Your task to perform on an android device: turn vacation reply on in the gmail app Image 0: 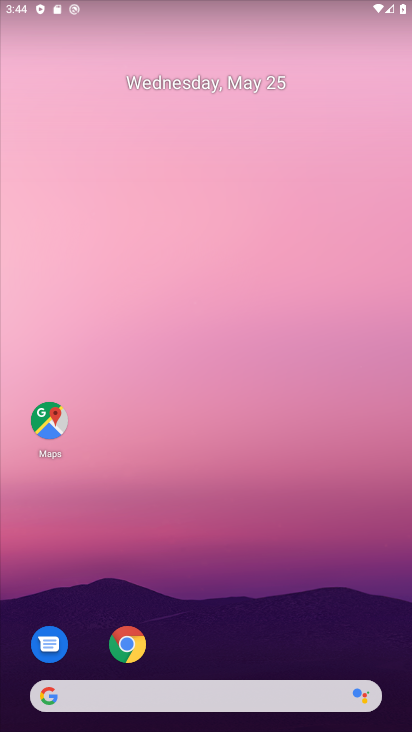
Step 0: drag from (214, 676) to (292, 238)
Your task to perform on an android device: turn vacation reply on in the gmail app Image 1: 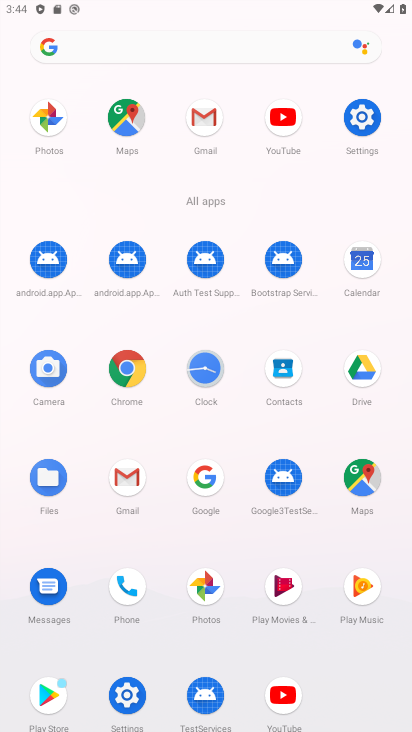
Step 1: click (130, 476)
Your task to perform on an android device: turn vacation reply on in the gmail app Image 2: 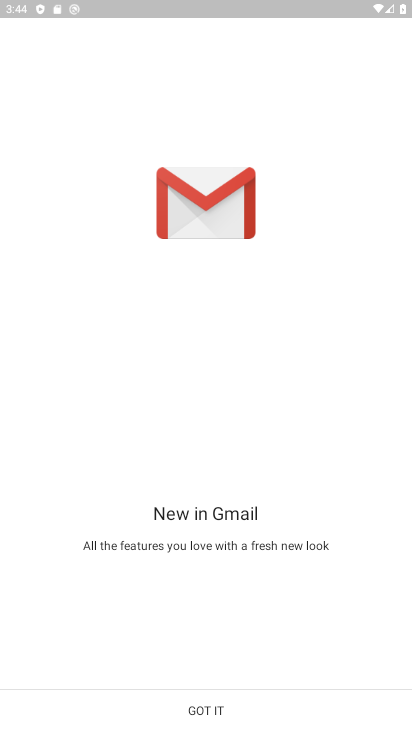
Step 2: click (220, 707)
Your task to perform on an android device: turn vacation reply on in the gmail app Image 3: 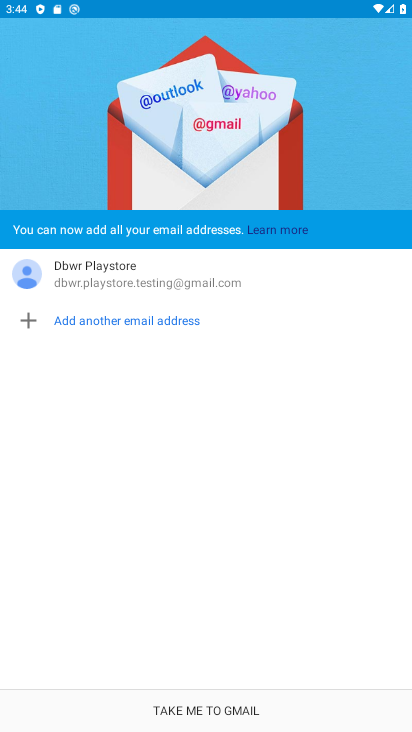
Step 3: click (218, 708)
Your task to perform on an android device: turn vacation reply on in the gmail app Image 4: 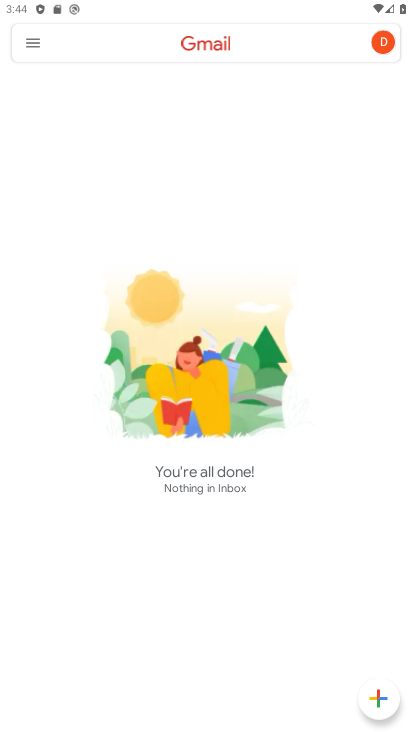
Step 4: click (36, 54)
Your task to perform on an android device: turn vacation reply on in the gmail app Image 5: 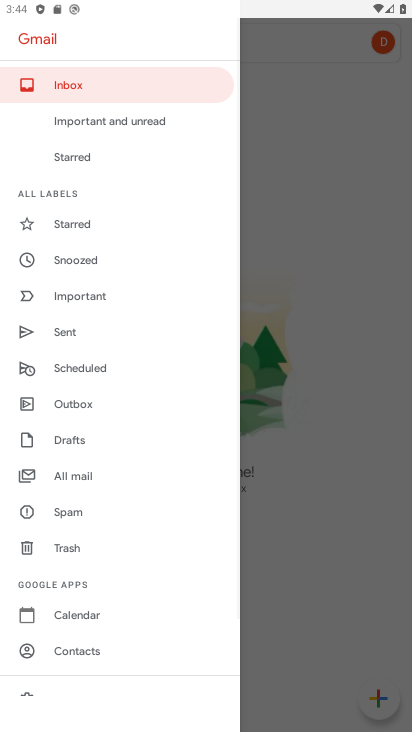
Step 5: drag from (93, 590) to (173, 346)
Your task to perform on an android device: turn vacation reply on in the gmail app Image 6: 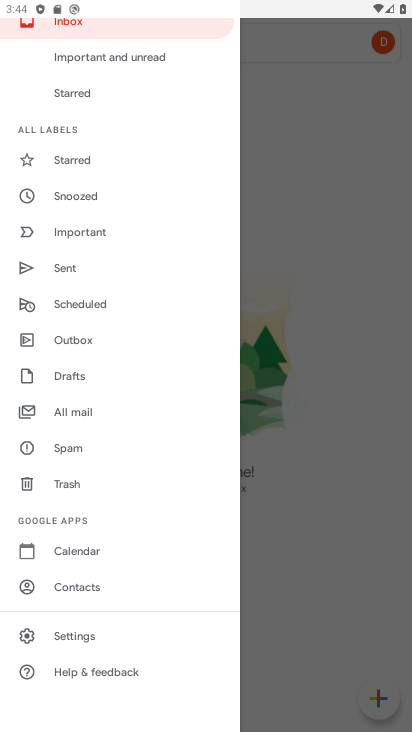
Step 6: click (108, 634)
Your task to perform on an android device: turn vacation reply on in the gmail app Image 7: 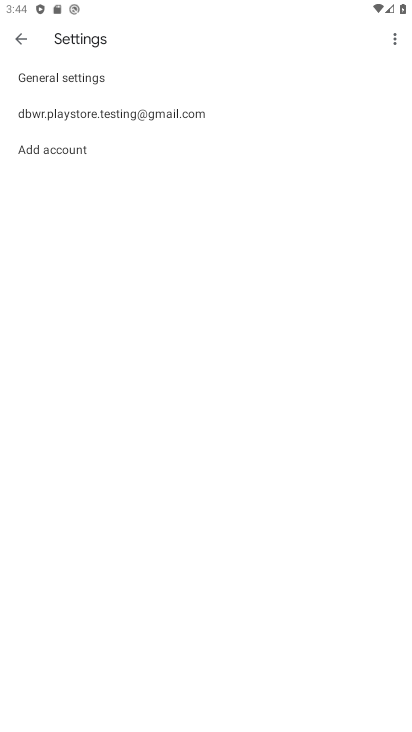
Step 7: click (164, 117)
Your task to perform on an android device: turn vacation reply on in the gmail app Image 8: 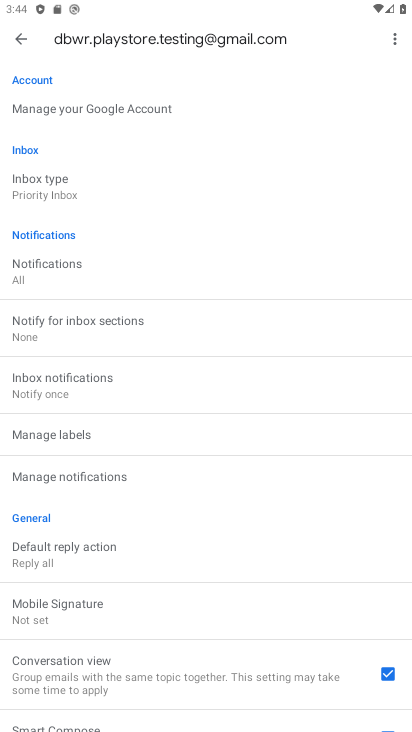
Step 8: drag from (152, 614) to (249, 235)
Your task to perform on an android device: turn vacation reply on in the gmail app Image 9: 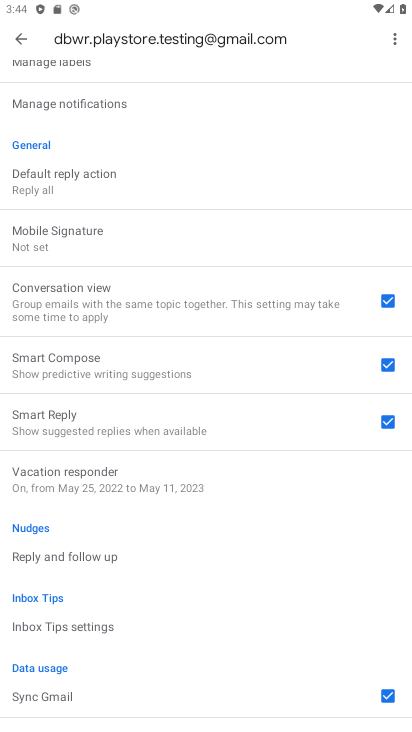
Step 9: click (156, 488)
Your task to perform on an android device: turn vacation reply on in the gmail app Image 10: 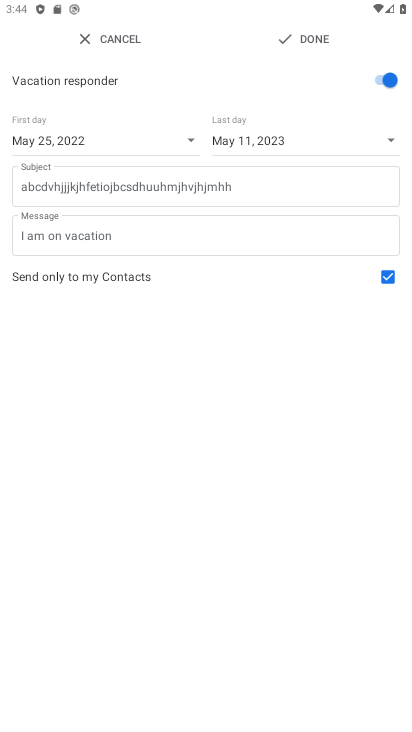
Step 10: task complete